Your task to perform on an android device: Search for sony triple a on ebay, select the first entry, and add it to the cart. Image 0: 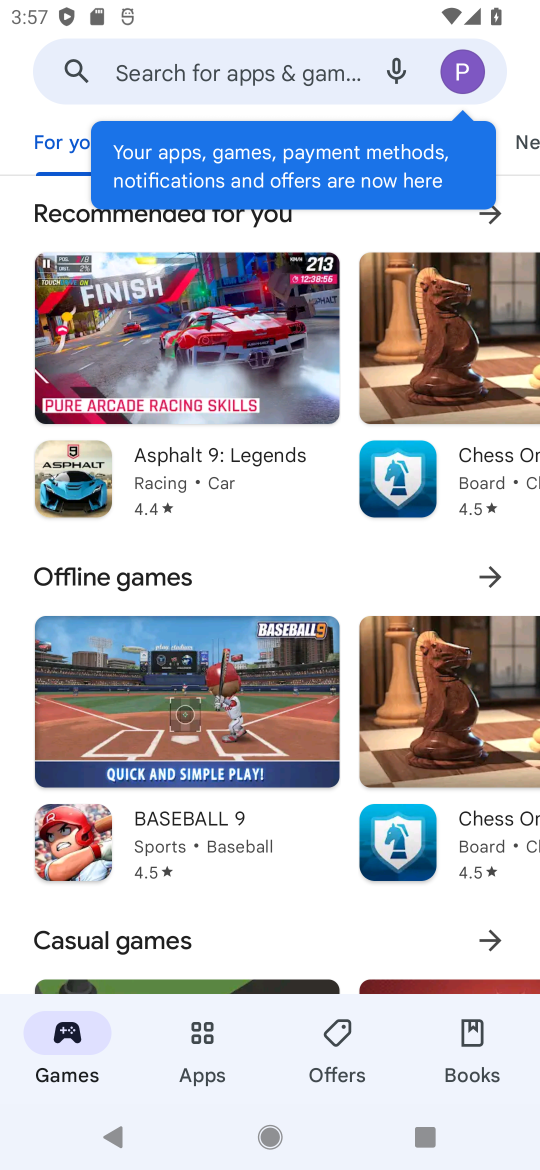
Step 0: press home button
Your task to perform on an android device: Search for sony triple a on ebay, select the first entry, and add it to the cart. Image 1: 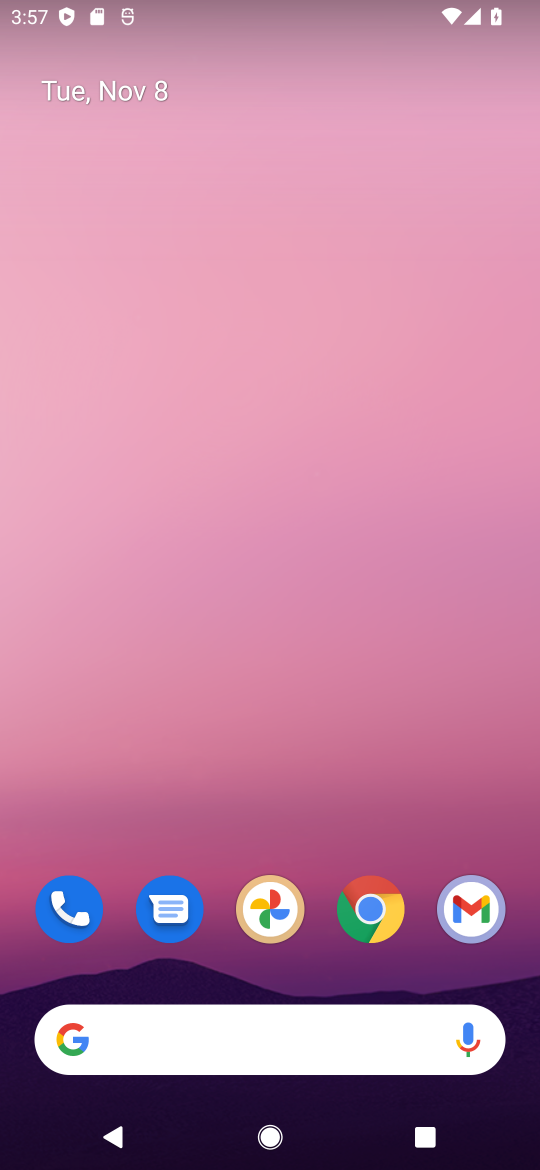
Step 1: click (384, 898)
Your task to perform on an android device: Search for sony triple a on ebay, select the first entry, and add it to the cart. Image 2: 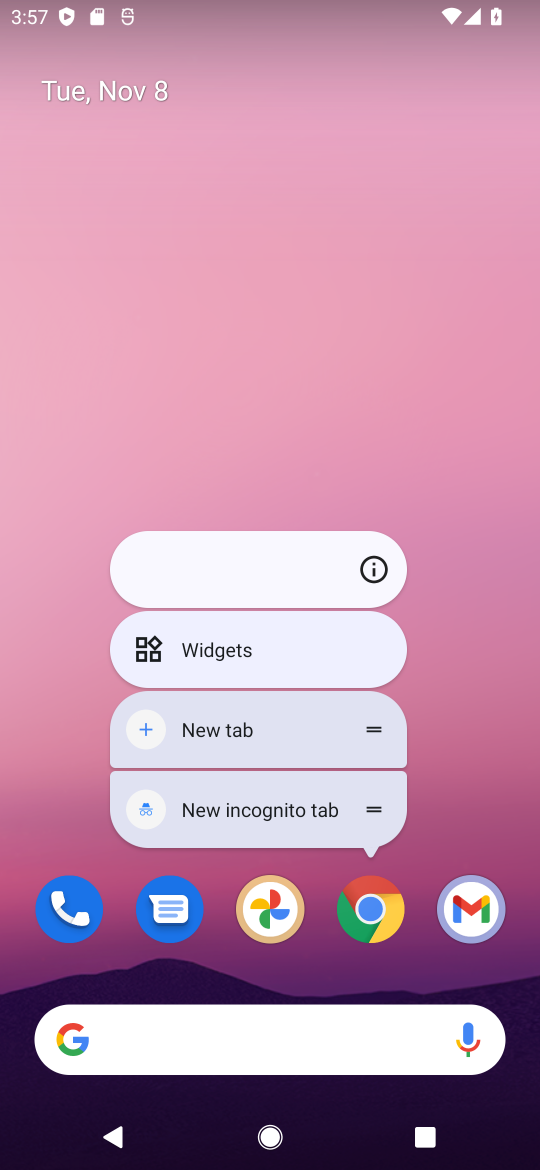
Step 2: click (375, 907)
Your task to perform on an android device: Search for sony triple a on ebay, select the first entry, and add it to the cart. Image 3: 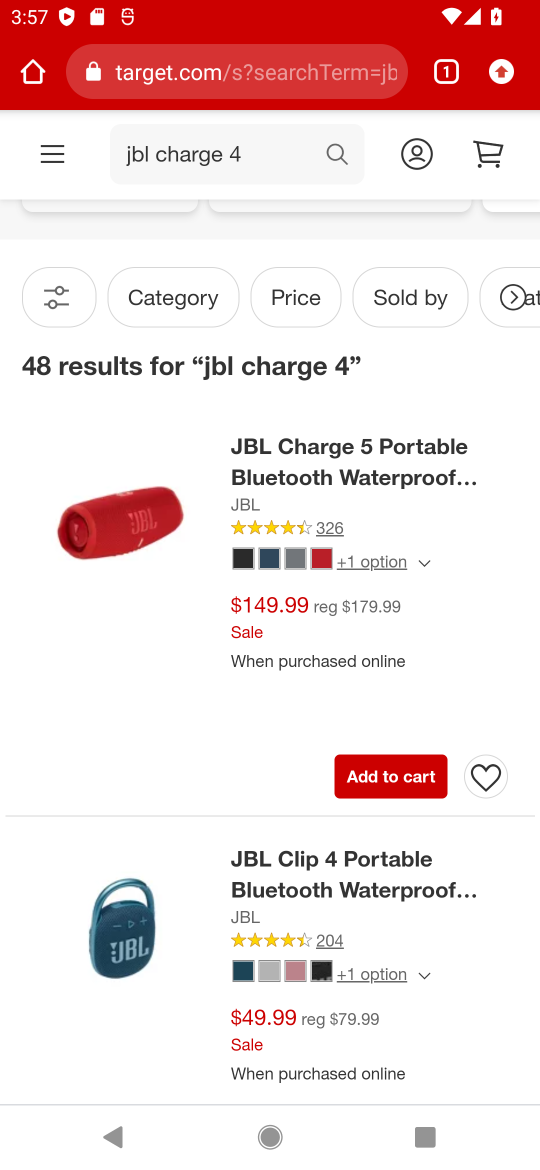
Step 3: click (335, 73)
Your task to perform on an android device: Search for sony triple a on ebay, select the first entry, and add it to the cart. Image 4: 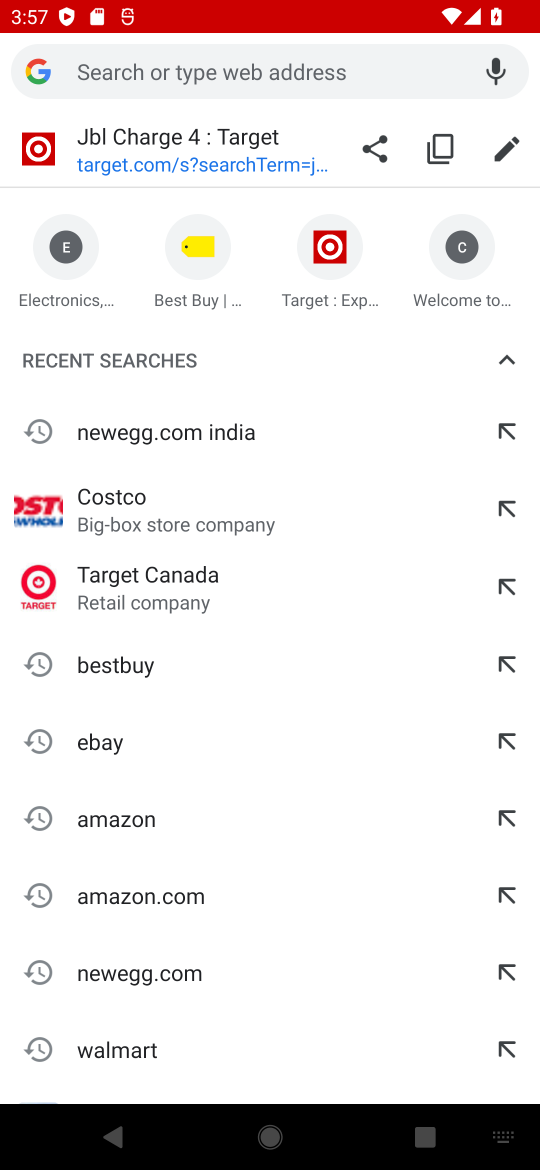
Step 4: click (92, 742)
Your task to perform on an android device: Search for sony triple a on ebay, select the first entry, and add it to the cart. Image 5: 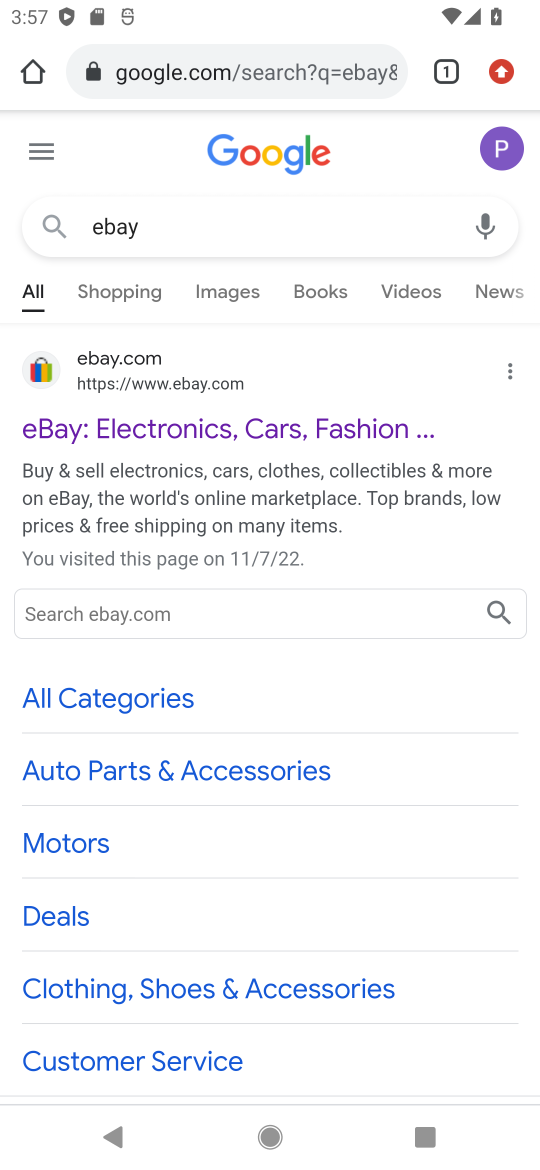
Step 5: click (189, 426)
Your task to perform on an android device: Search for sony triple a on ebay, select the first entry, and add it to the cart. Image 6: 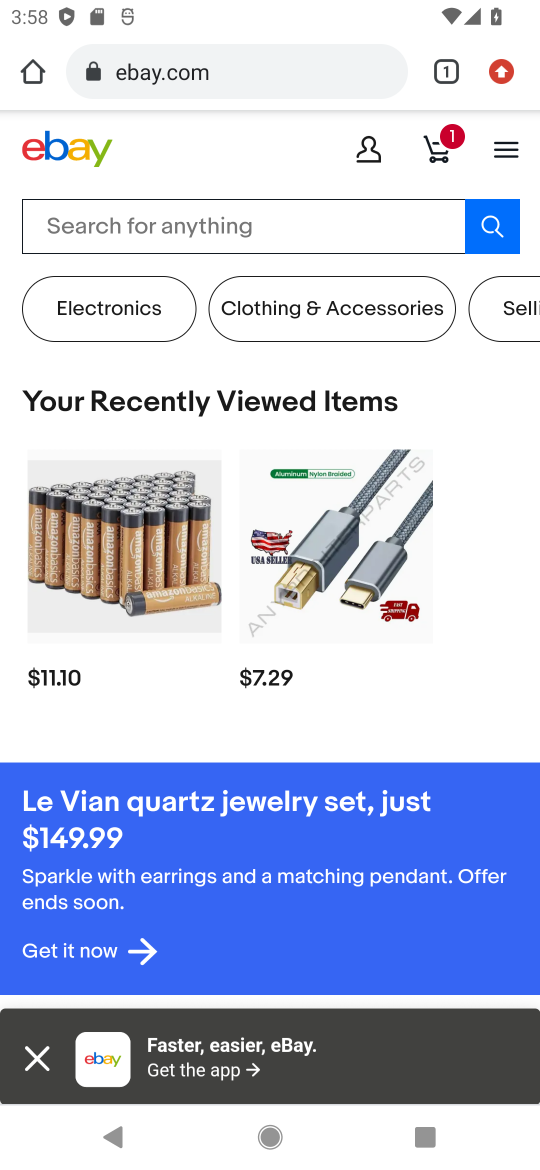
Step 6: click (143, 209)
Your task to perform on an android device: Search for sony triple a on ebay, select the first entry, and add it to the cart. Image 7: 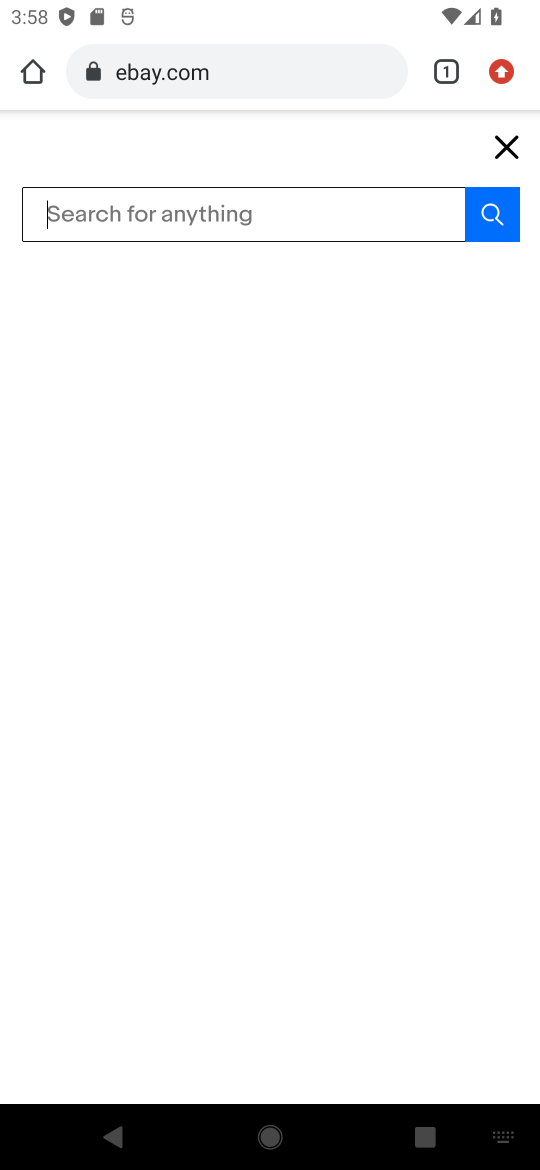
Step 7: type "sony triple a"
Your task to perform on an android device: Search for sony triple a on ebay, select the first entry, and add it to the cart. Image 8: 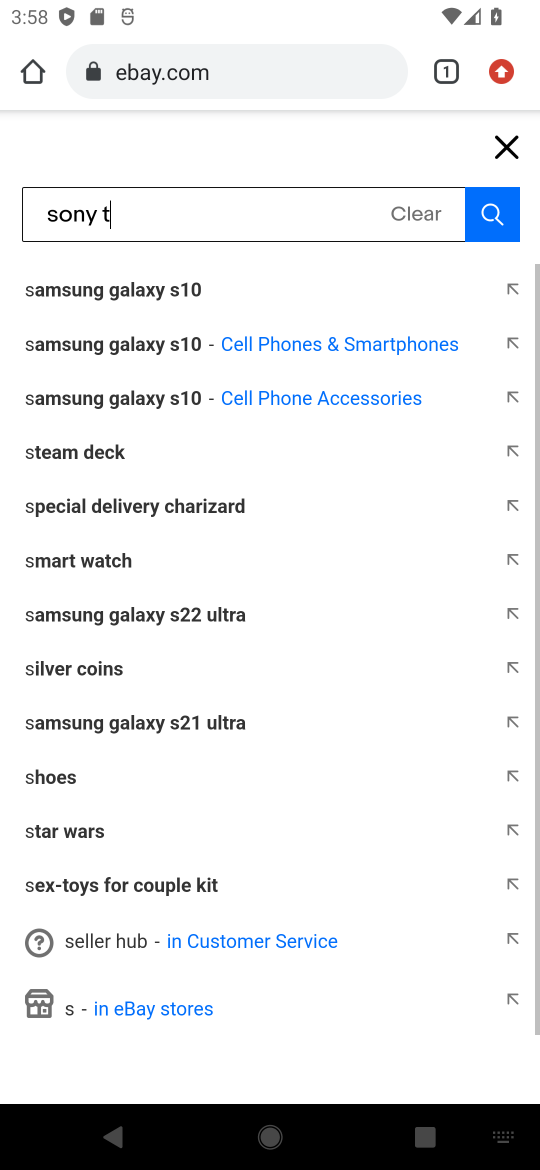
Step 8: press enter
Your task to perform on an android device: Search for sony triple a on ebay, select the first entry, and add it to the cart. Image 9: 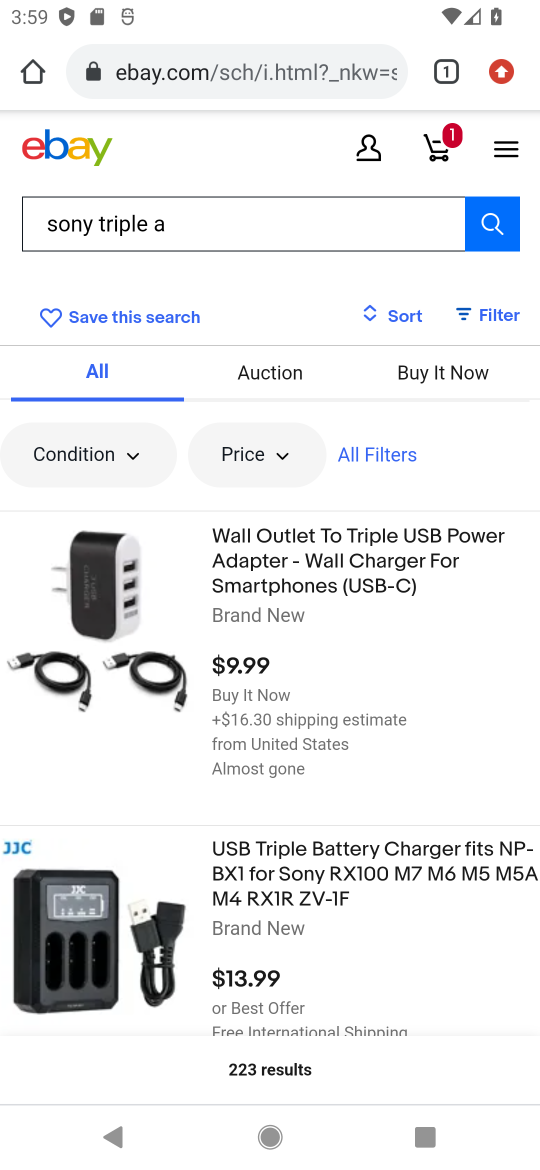
Step 9: task complete